Your task to perform on an android device: turn off smart reply in the gmail app Image 0: 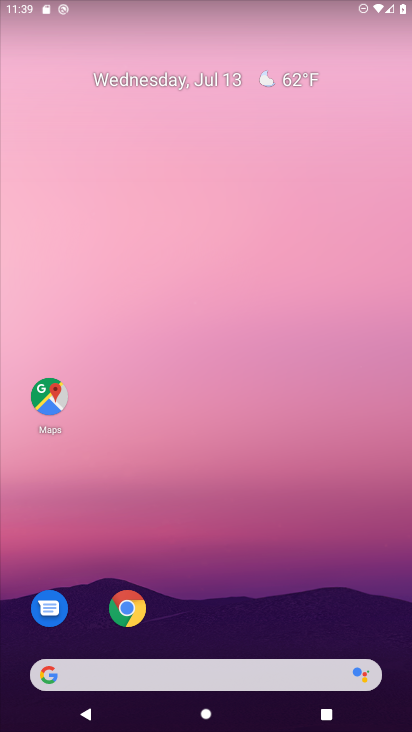
Step 0: drag from (253, 683) to (208, 79)
Your task to perform on an android device: turn off smart reply in the gmail app Image 1: 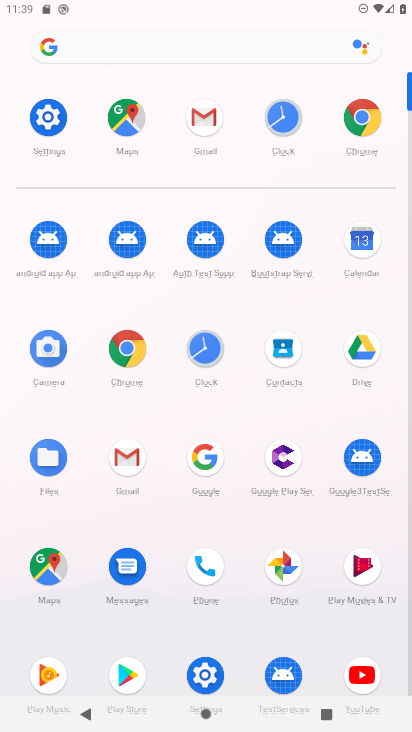
Step 1: click (124, 459)
Your task to perform on an android device: turn off smart reply in the gmail app Image 2: 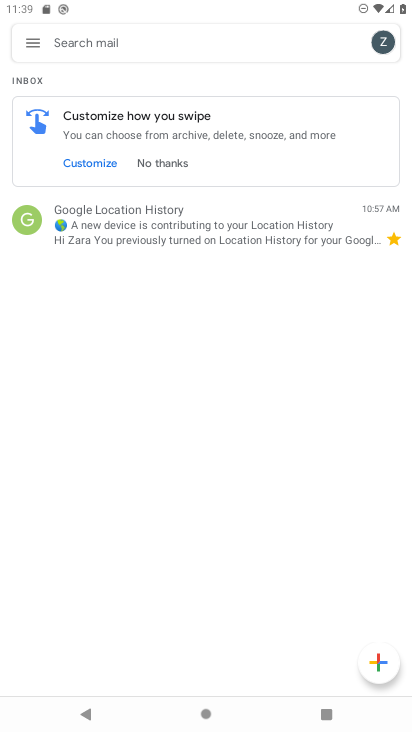
Step 2: click (36, 42)
Your task to perform on an android device: turn off smart reply in the gmail app Image 3: 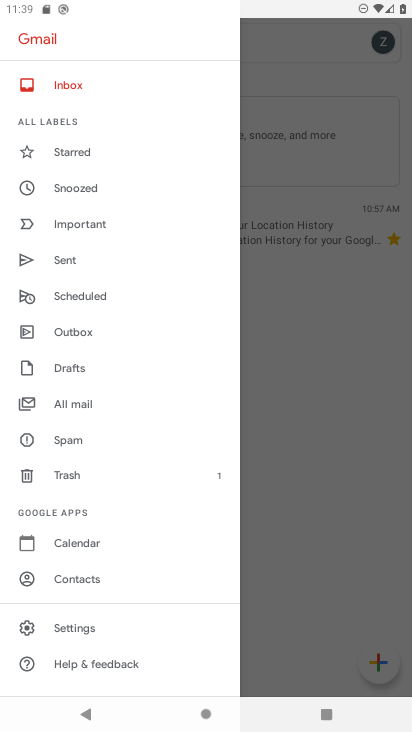
Step 3: click (67, 629)
Your task to perform on an android device: turn off smart reply in the gmail app Image 4: 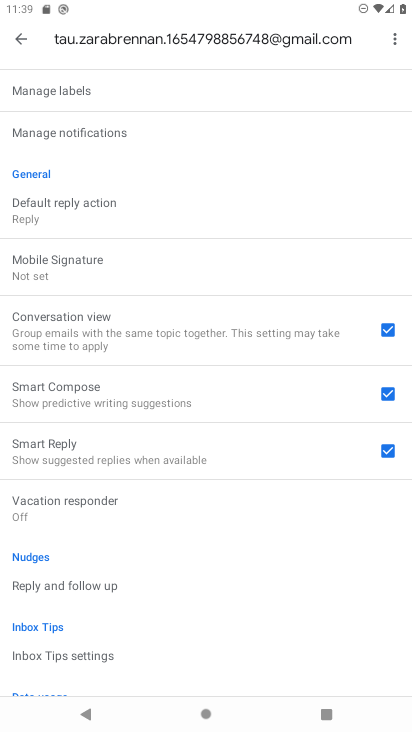
Step 4: drag from (132, 657) to (120, 451)
Your task to perform on an android device: turn off smart reply in the gmail app Image 5: 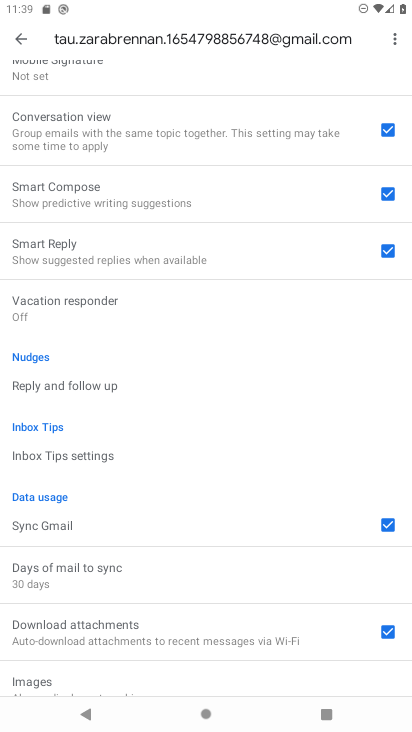
Step 5: click (385, 247)
Your task to perform on an android device: turn off smart reply in the gmail app Image 6: 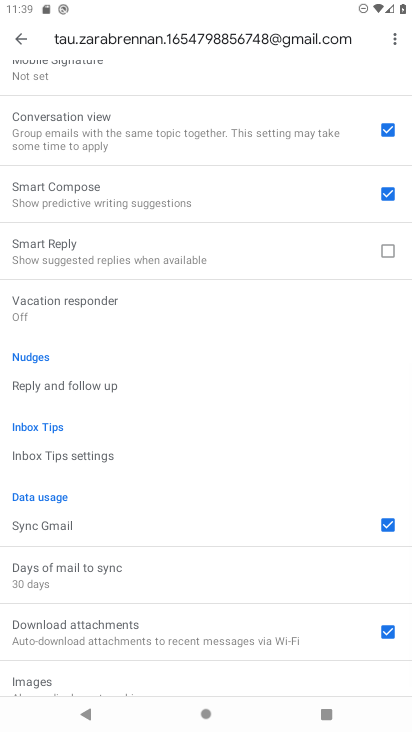
Step 6: task complete